Your task to perform on an android device: Open Yahoo.com Image 0: 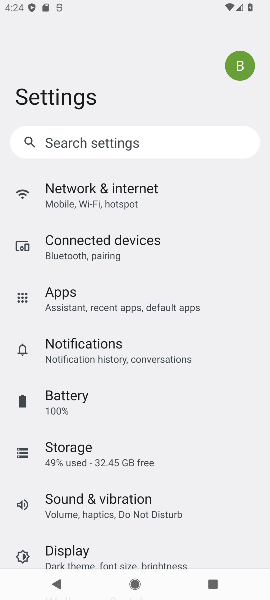
Step 0: press home button
Your task to perform on an android device: Open Yahoo.com Image 1: 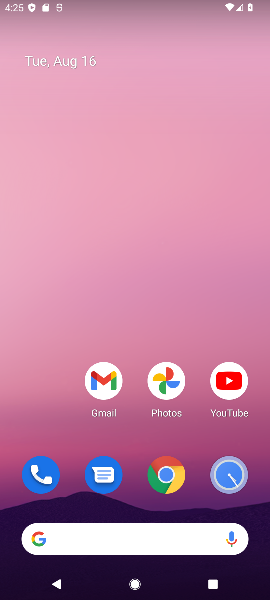
Step 1: drag from (254, 497) to (122, 8)
Your task to perform on an android device: Open Yahoo.com Image 2: 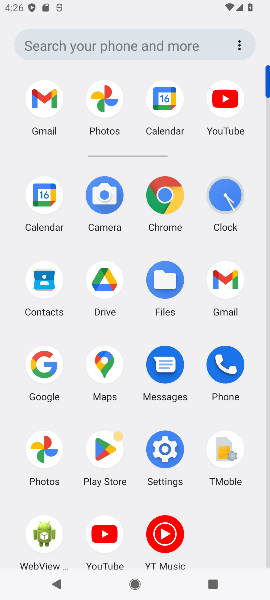
Step 2: click (55, 368)
Your task to perform on an android device: Open Yahoo.com Image 3: 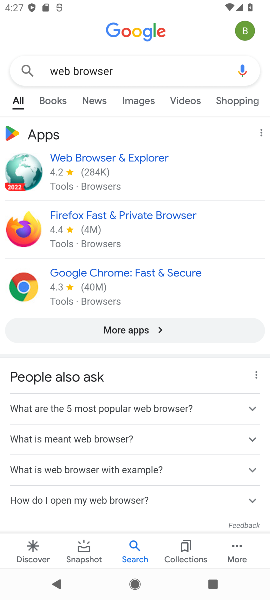
Step 3: press back button
Your task to perform on an android device: Open Yahoo.com Image 4: 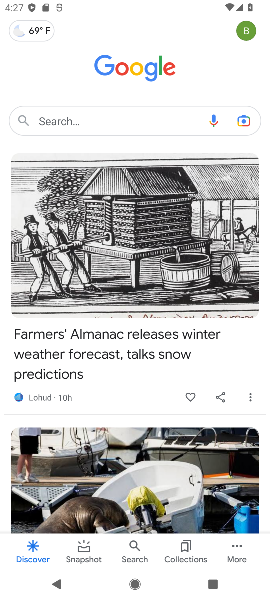
Step 4: click (75, 116)
Your task to perform on an android device: Open Yahoo.com Image 5: 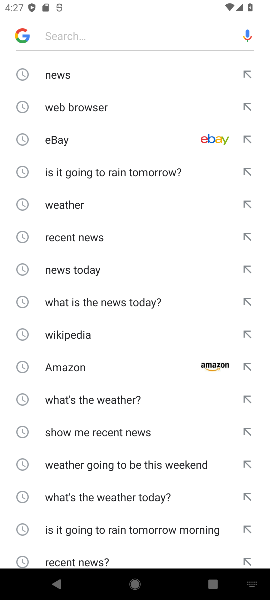
Step 5: drag from (91, 432) to (81, 74)
Your task to perform on an android device: Open Yahoo.com Image 6: 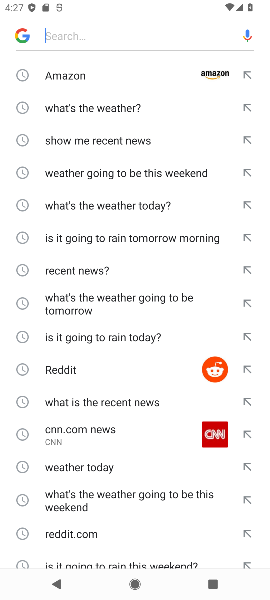
Step 6: drag from (86, 457) to (75, 145)
Your task to perform on an android device: Open Yahoo.com Image 7: 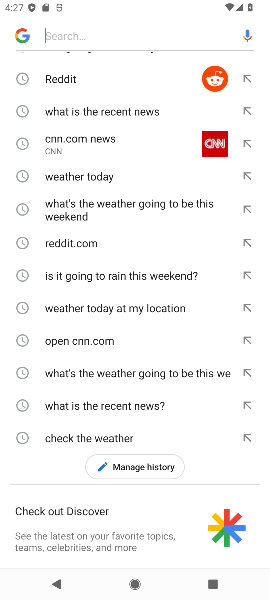
Step 7: type " Yahoo.com"
Your task to perform on an android device: Open Yahoo.com Image 8: 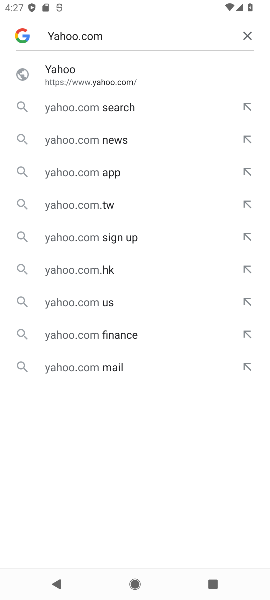
Step 8: click (91, 79)
Your task to perform on an android device: Open Yahoo.com Image 9: 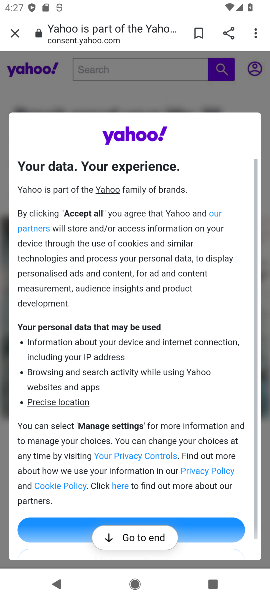
Step 9: task complete